Your task to perform on an android device: refresh tabs in the chrome app Image 0: 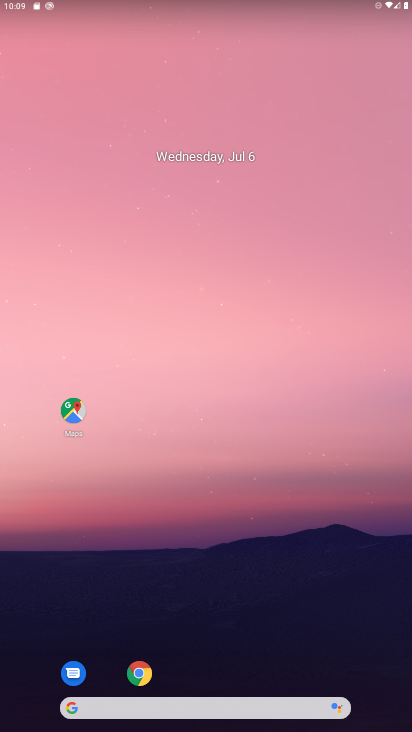
Step 0: click (146, 666)
Your task to perform on an android device: refresh tabs in the chrome app Image 1: 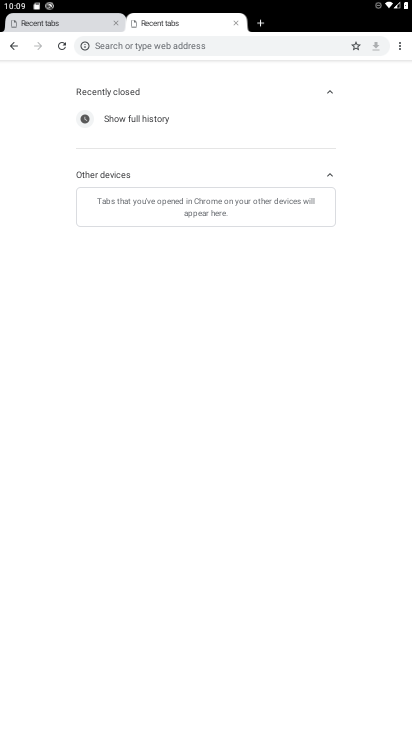
Step 1: click (396, 49)
Your task to perform on an android device: refresh tabs in the chrome app Image 2: 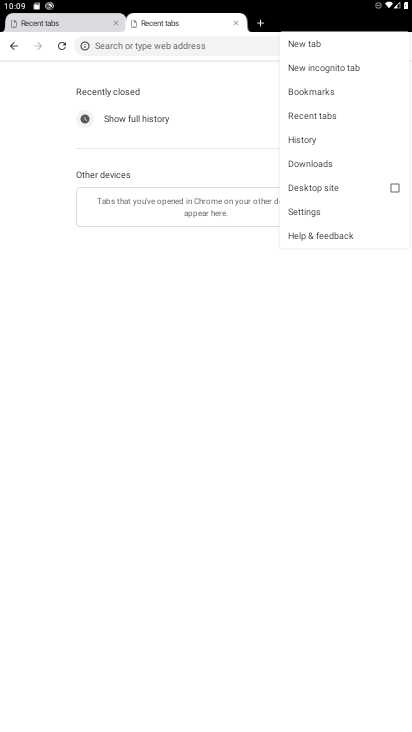
Step 2: click (226, 125)
Your task to perform on an android device: refresh tabs in the chrome app Image 3: 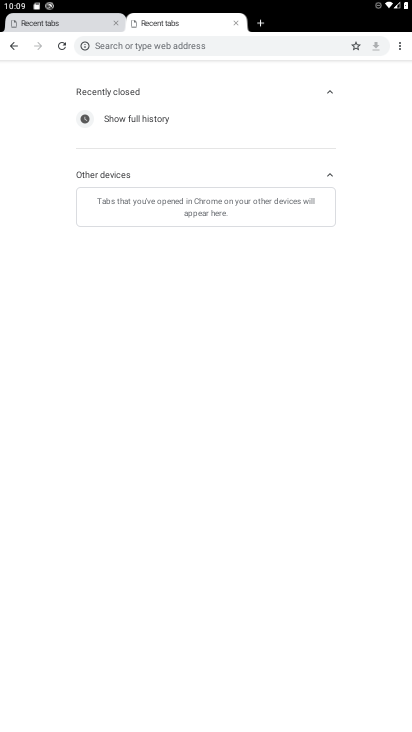
Step 3: click (63, 54)
Your task to perform on an android device: refresh tabs in the chrome app Image 4: 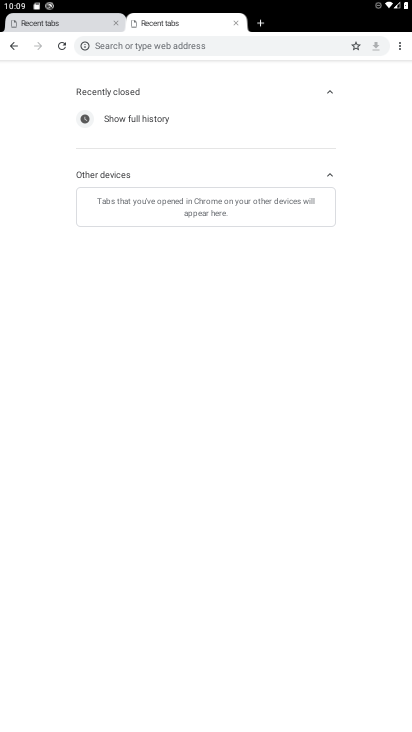
Step 4: task complete